Your task to perform on an android device: toggle notifications settings in the gmail app Image 0: 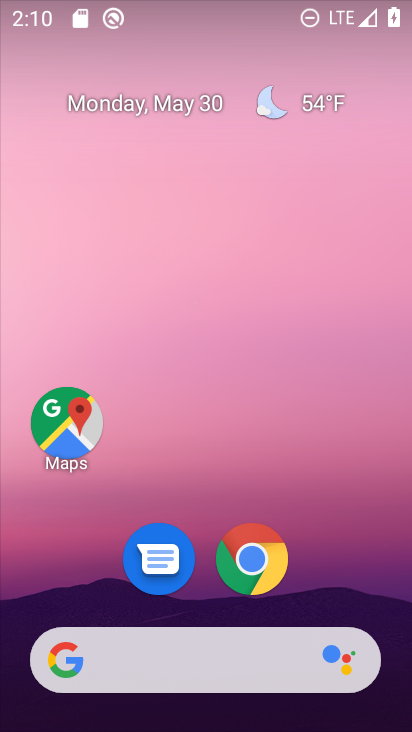
Step 0: drag from (307, 553) to (318, 80)
Your task to perform on an android device: toggle notifications settings in the gmail app Image 1: 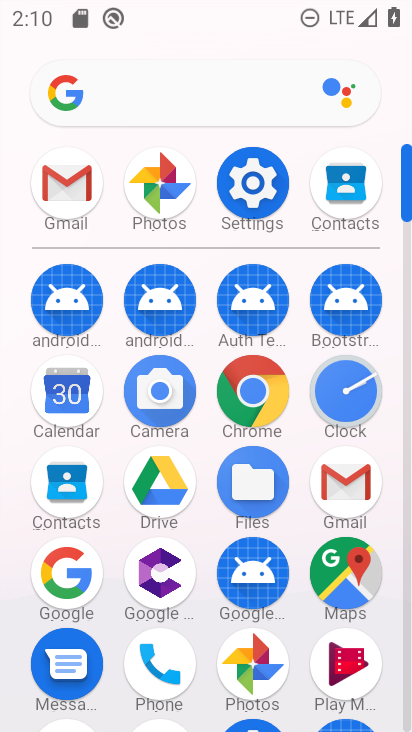
Step 1: click (334, 491)
Your task to perform on an android device: toggle notifications settings in the gmail app Image 2: 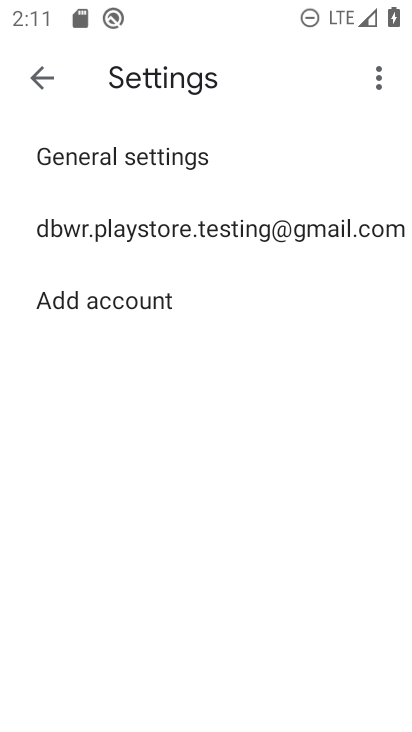
Step 2: click (187, 234)
Your task to perform on an android device: toggle notifications settings in the gmail app Image 3: 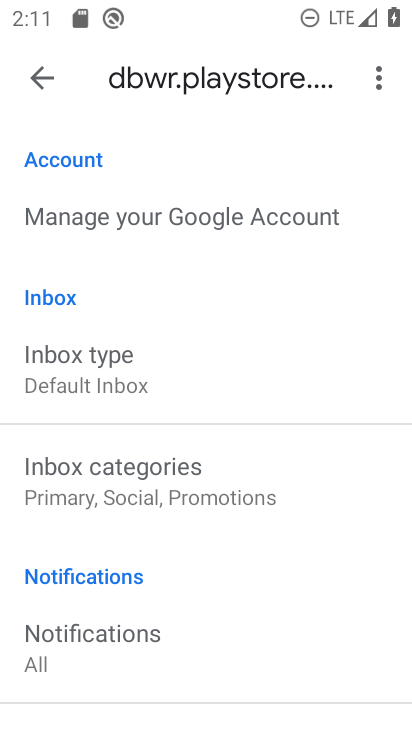
Step 3: drag from (178, 671) to (227, 338)
Your task to perform on an android device: toggle notifications settings in the gmail app Image 4: 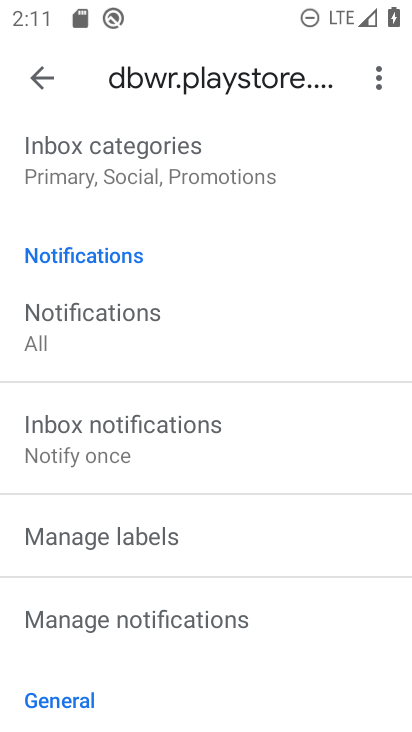
Step 4: click (183, 619)
Your task to perform on an android device: toggle notifications settings in the gmail app Image 5: 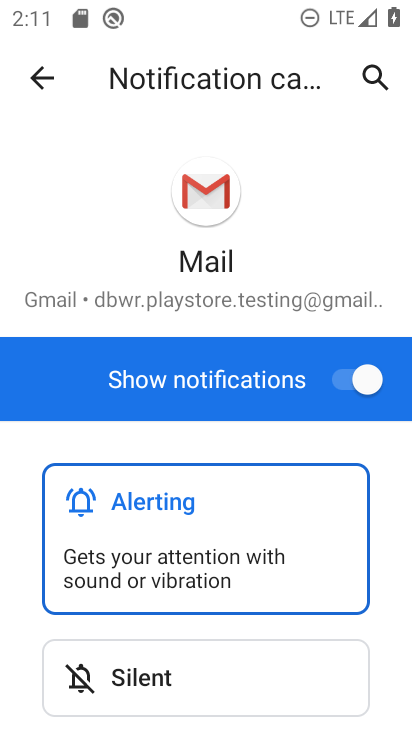
Step 5: click (368, 397)
Your task to perform on an android device: toggle notifications settings in the gmail app Image 6: 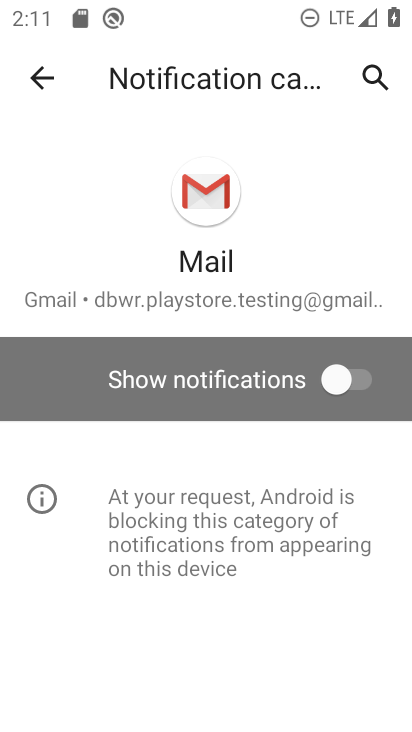
Step 6: task complete